Your task to perform on an android device: Clear all items from cart on walmart.com. Search for alienware aurora on walmart.com, select the first entry, and add it to the cart. Image 0: 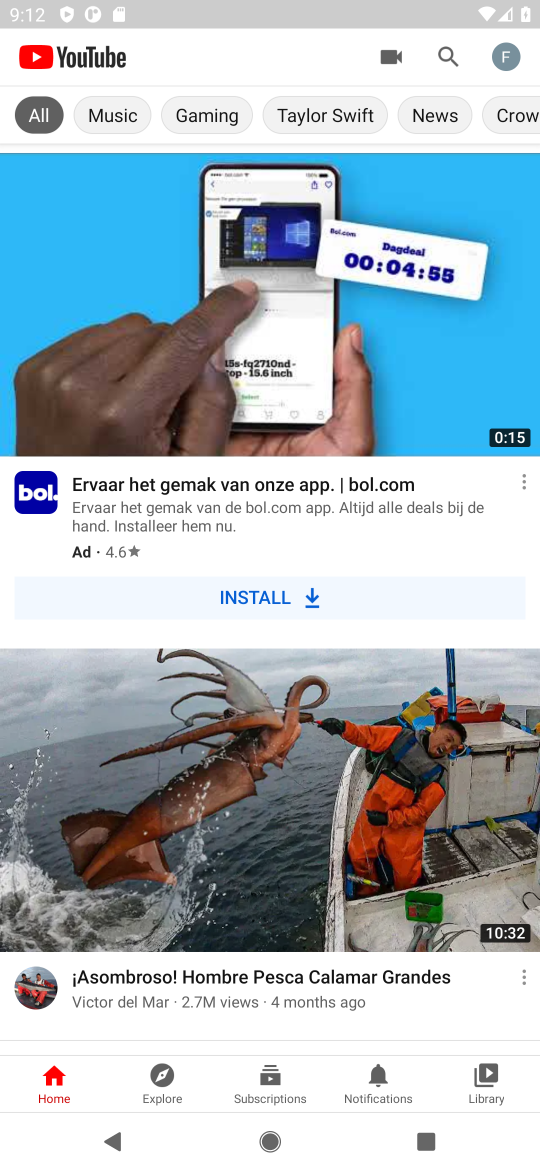
Step 0: press home button
Your task to perform on an android device: Clear all items from cart on walmart.com. Search for alienware aurora on walmart.com, select the first entry, and add it to the cart. Image 1: 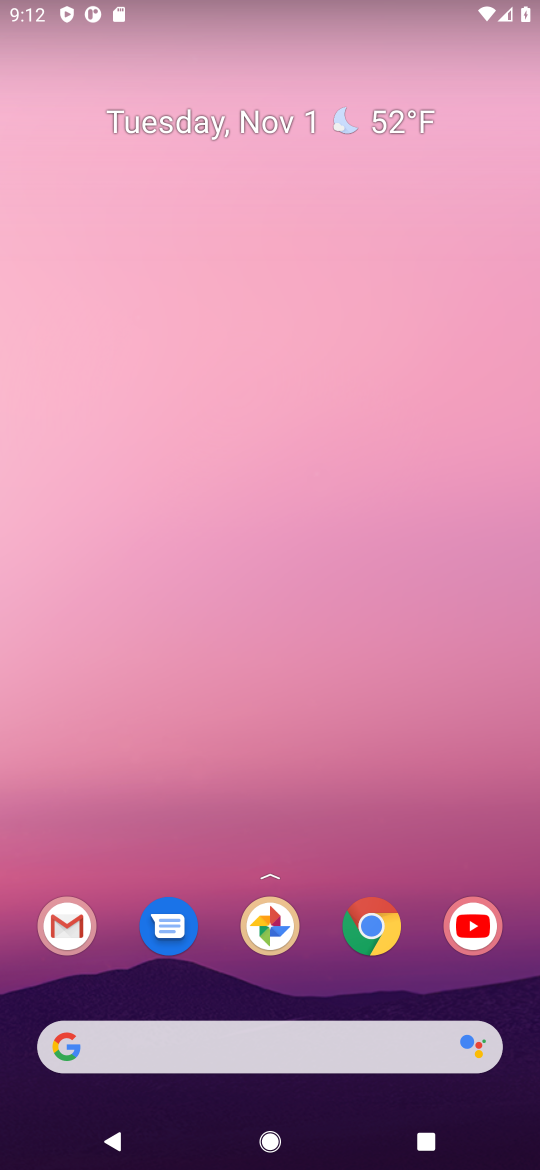
Step 1: click (361, 918)
Your task to perform on an android device: Clear all items from cart on walmart.com. Search for alienware aurora on walmart.com, select the first entry, and add it to the cart. Image 2: 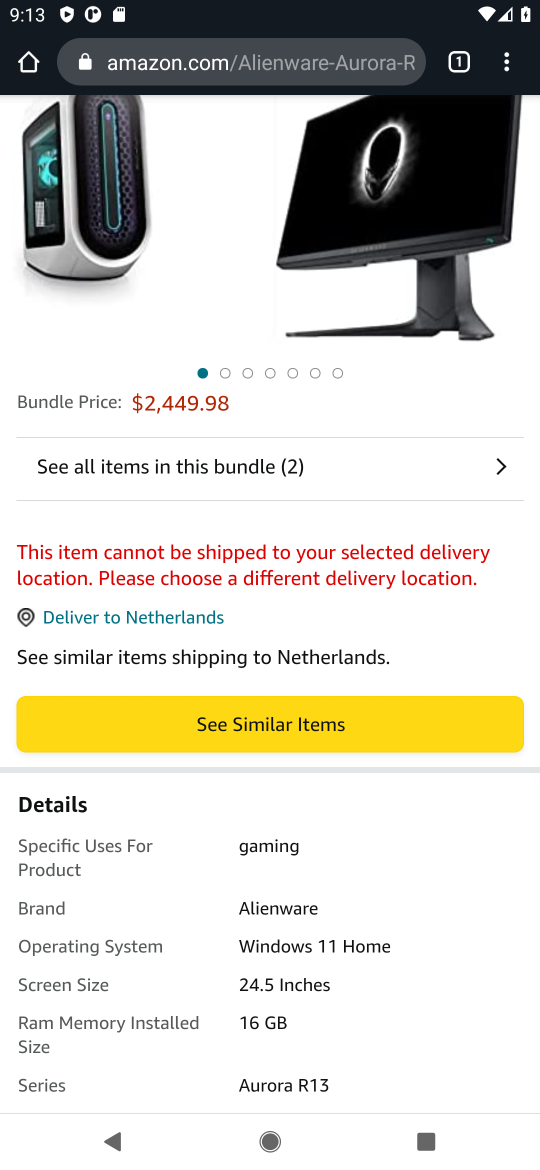
Step 2: press home button
Your task to perform on an android device: Clear all items from cart on walmart.com. Search for alienware aurora on walmart.com, select the first entry, and add it to the cart. Image 3: 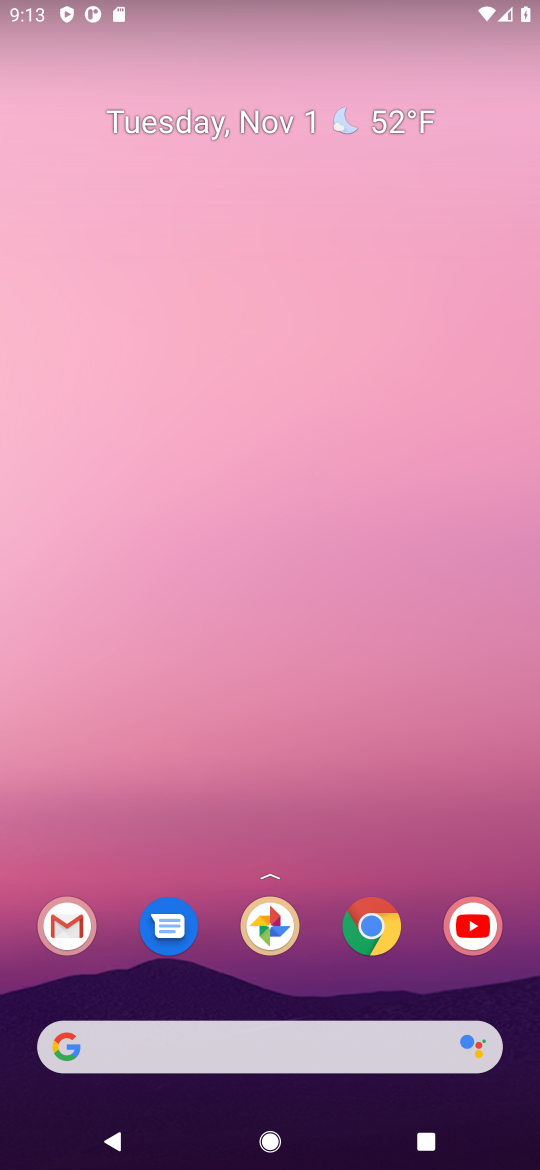
Step 3: click (379, 931)
Your task to perform on an android device: Clear all items from cart on walmart.com. Search for alienware aurora on walmart.com, select the first entry, and add it to the cart. Image 4: 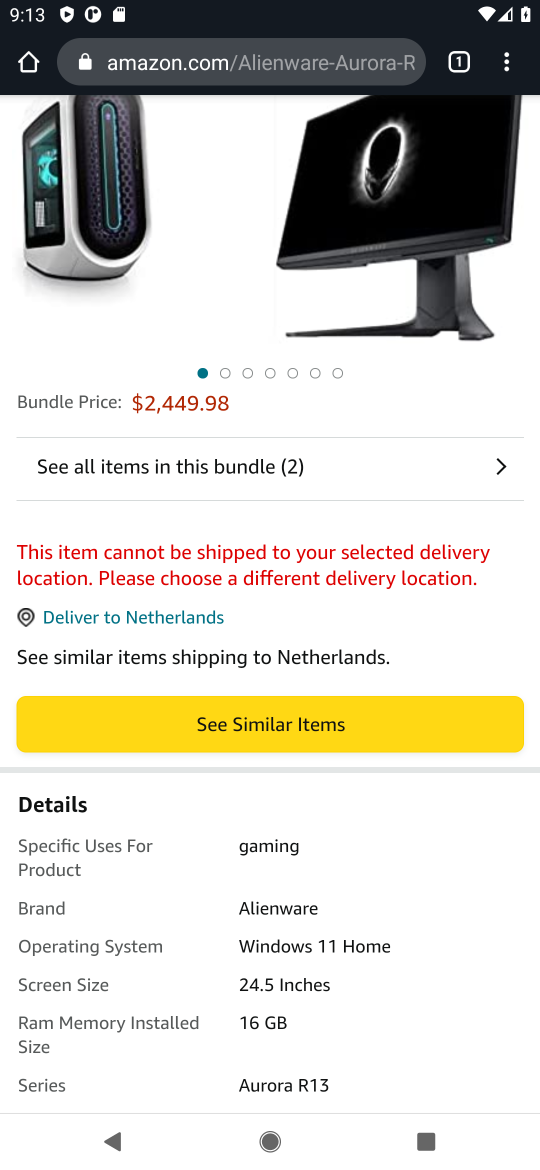
Step 4: drag from (57, 830) to (146, 274)
Your task to perform on an android device: Clear all items from cart on walmart.com. Search for alienware aurora on walmart.com, select the first entry, and add it to the cart. Image 5: 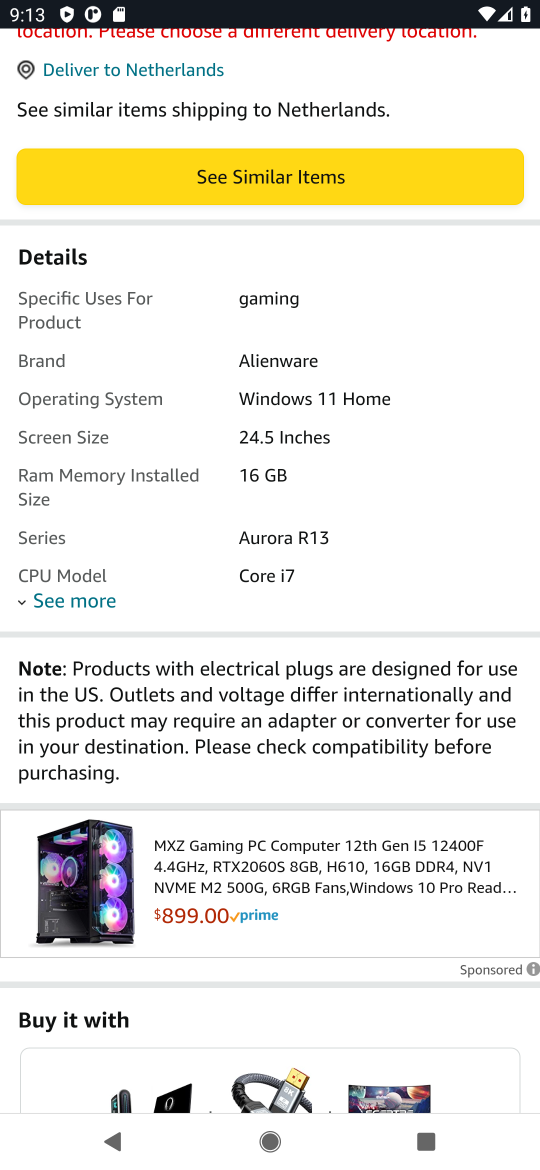
Step 5: drag from (294, 860) to (330, 525)
Your task to perform on an android device: Clear all items from cart on walmart.com. Search for alienware aurora on walmart.com, select the first entry, and add it to the cart. Image 6: 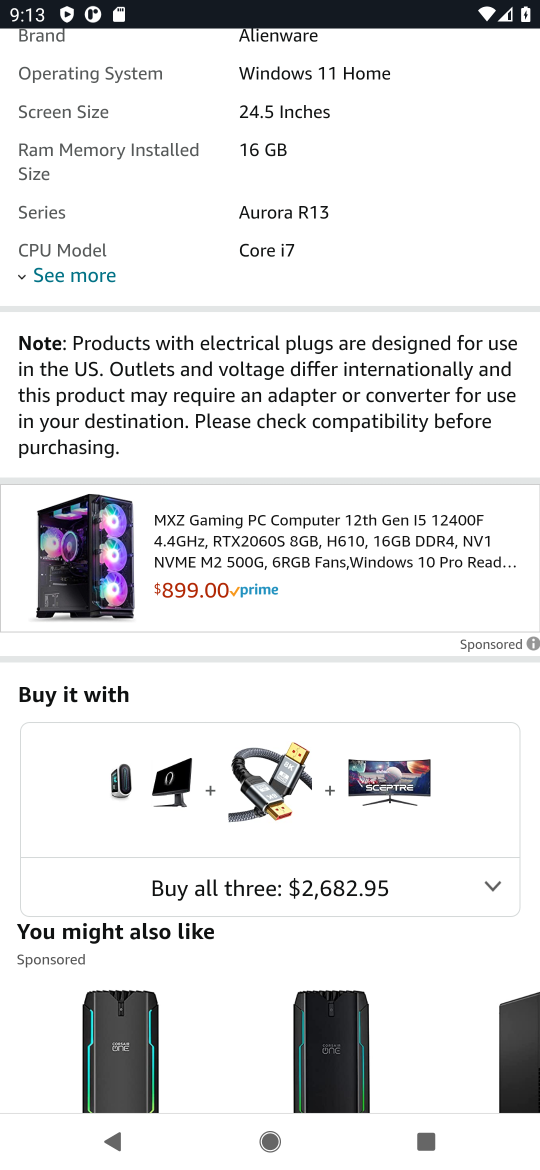
Step 6: drag from (355, 281) to (288, 1020)
Your task to perform on an android device: Clear all items from cart on walmart.com. Search for alienware aurora on walmart.com, select the first entry, and add it to the cart. Image 7: 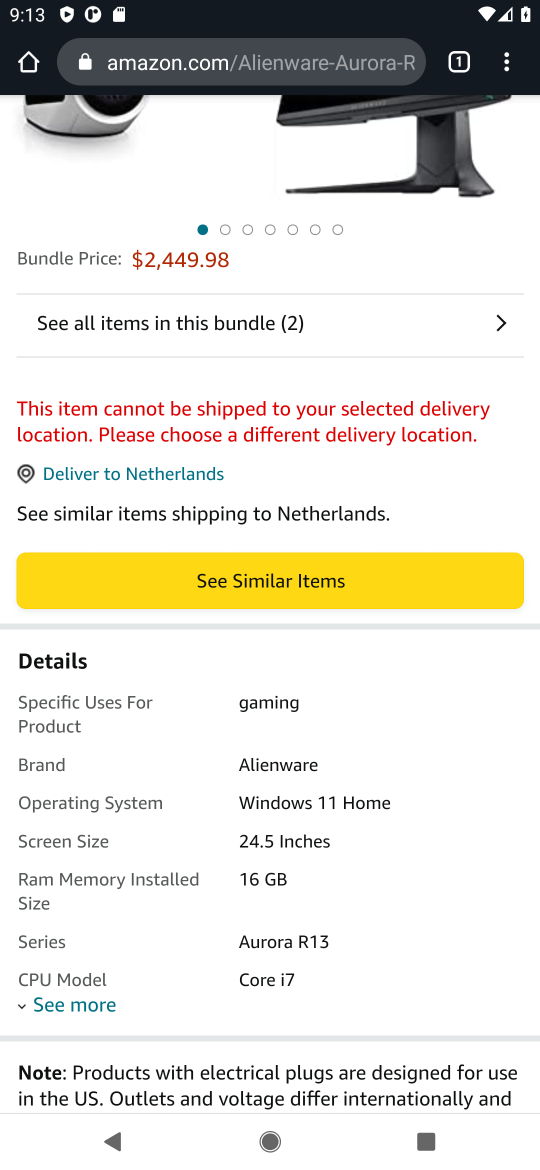
Step 7: drag from (282, 356) to (298, 776)
Your task to perform on an android device: Clear all items from cart on walmart.com. Search for alienware aurora on walmart.com, select the first entry, and add it to the cart. Image 8: 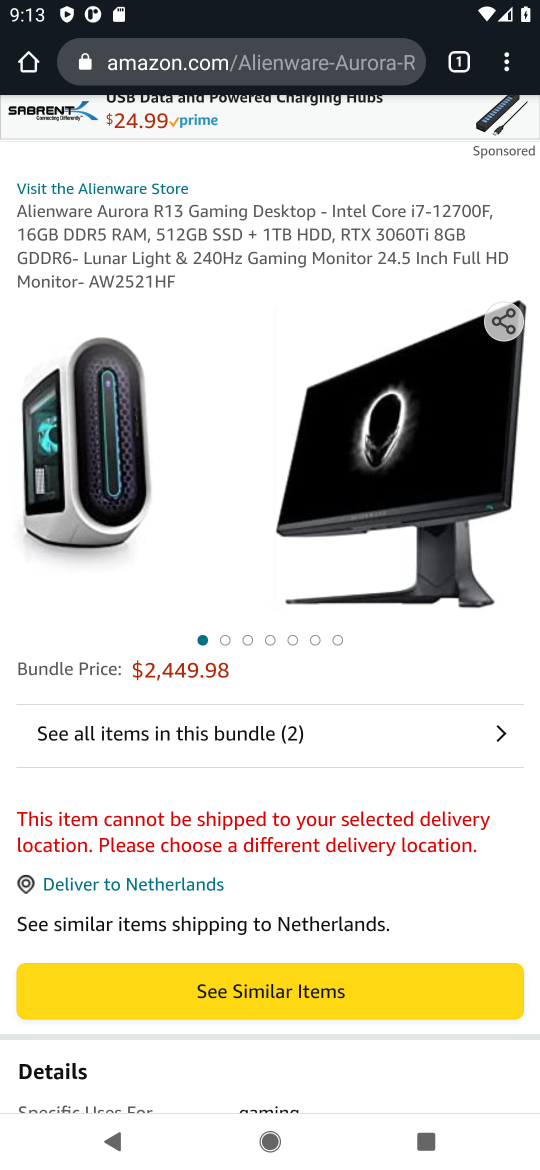
Step 8: click (138, 73)
Your task to perform on an android device: Clear all items from cart on walmart.com. Search for alienware aurora on walmart.com, select the first entry, and add it to the cart. Image 9: 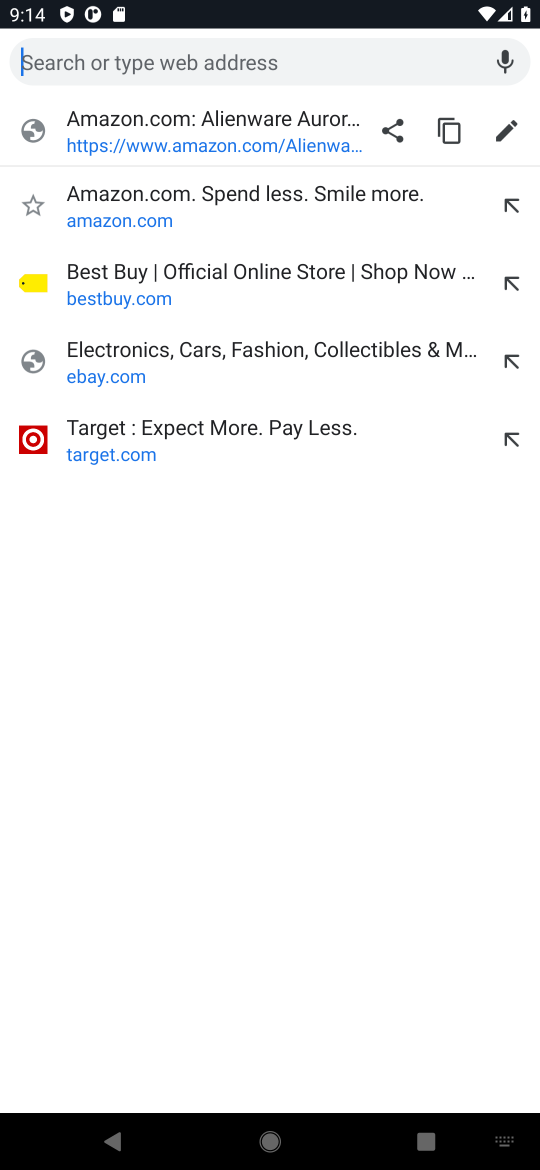
Step 9: type "walmart . com"
Your task to perform on an android device: Clear all items from cart on walmart.com. Search for alienware aurora on walmart.com, select the first entry, and add it to the cart. Image 10: 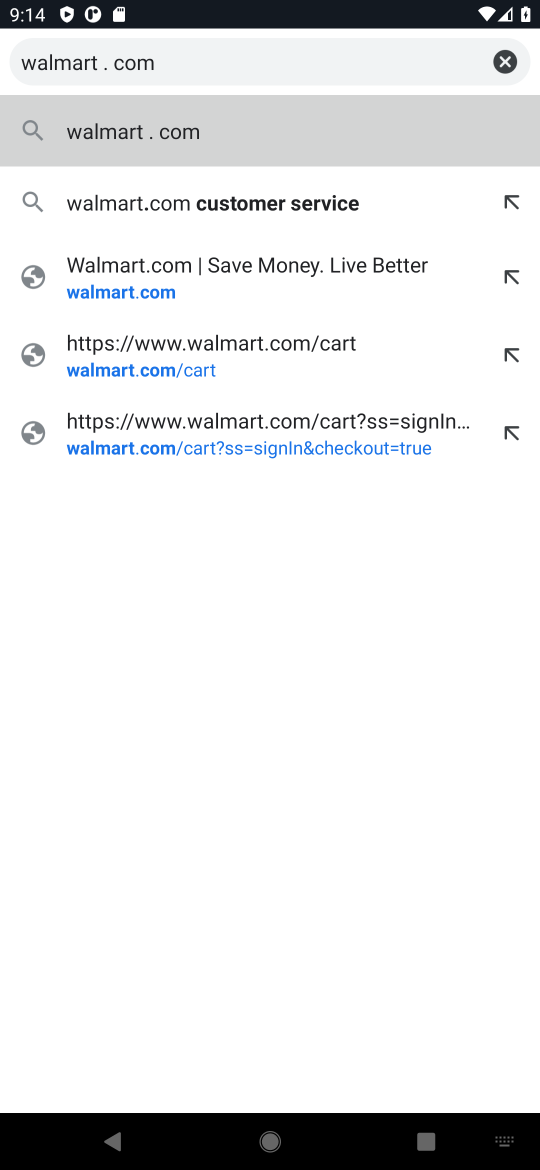
Step 10: drag from (390, 81) to (145, 289)
Your task to perform on an android device: Clear all items from cart on walmart.com. Search for alienware aurora on walmart.com, select the first entry, and add it to the cart. Image 11: 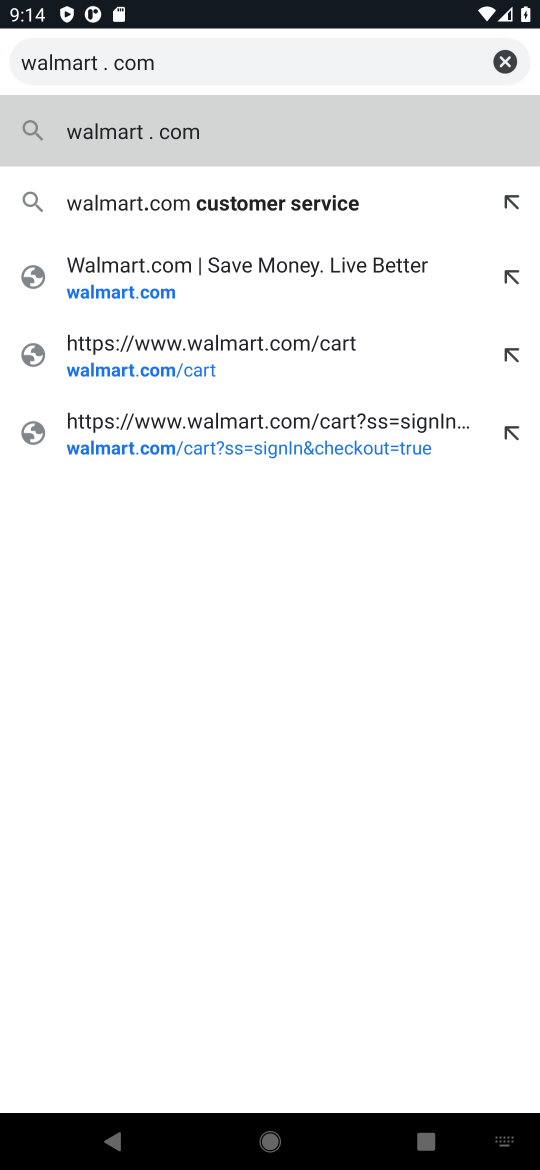
Step 11: click (156, 290)
Your task to perform on an android device: Clear all items from cart on walmart.com. Search for alienware aurora on walmart.com, select the first entry, and add it to the cart. Image 12: 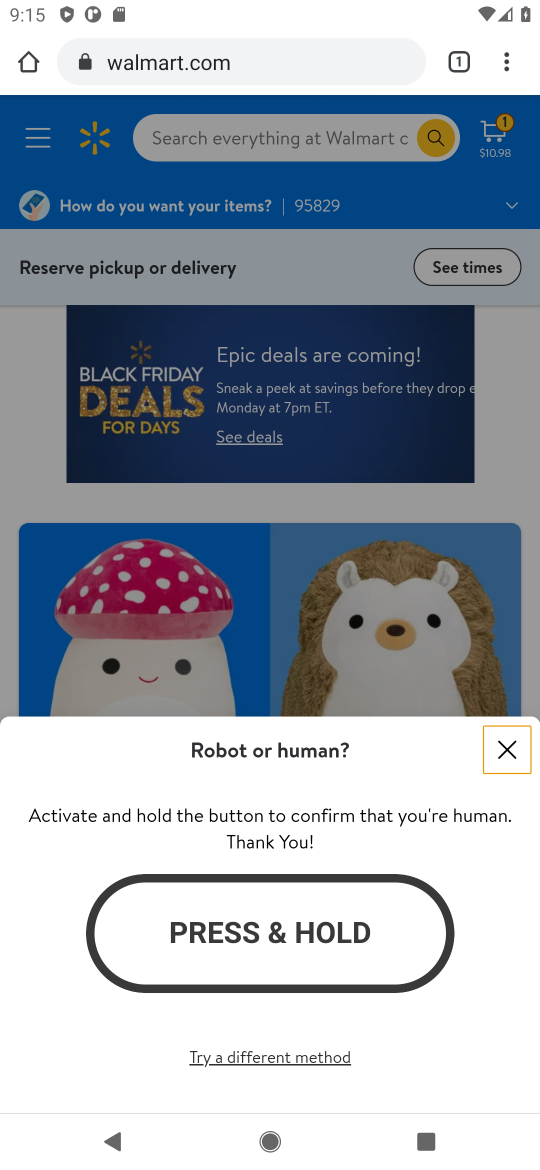
Step 12: click (507, 739)
Your task to perform on an android device: Clear all items from cart on walmart.com. Search for alienware aurora on walmart.com, select the first entry, and add it to the cart. Image 13: 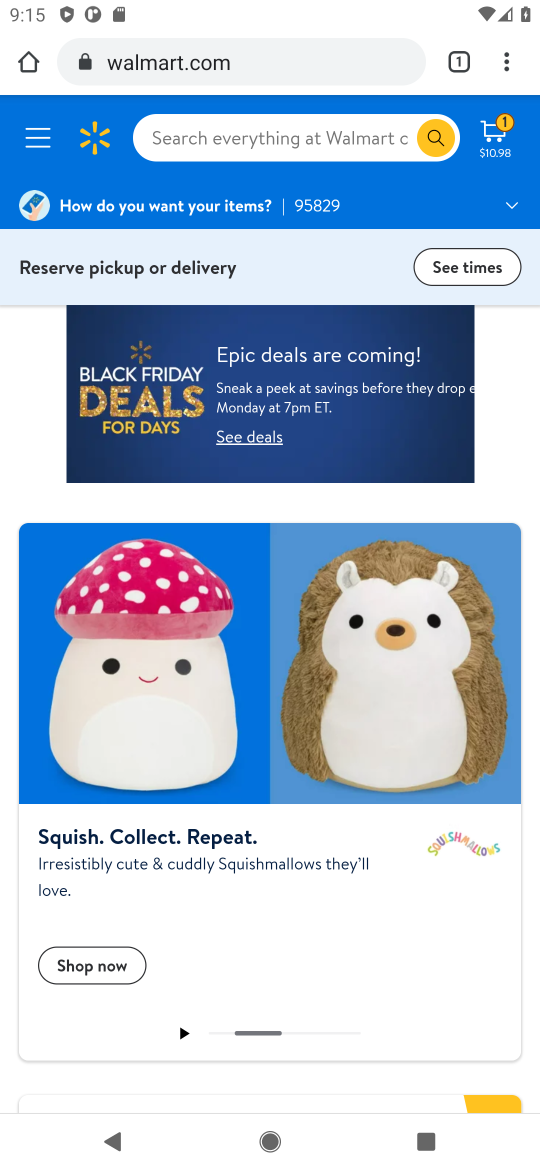
Step 13: click (236, 136)
Your task to perform on an android device: Clear all items from cart on walmart.com. Search for alienware aurora on walmart.com, select the first entry, and add it to the cart. Image 14: 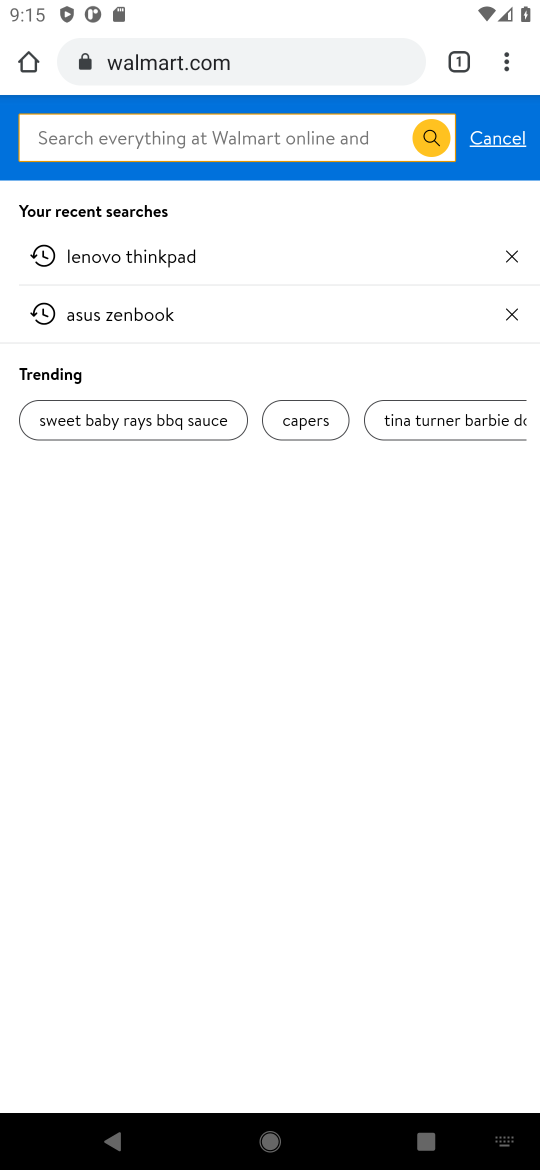
Step 14: type "alienware aurora"
Your task to perform on an android device: Clear all items from cart on walmart.com. Search for alienware aurora on walmart.com, select the first entry, and add it to the cart. Image 15: 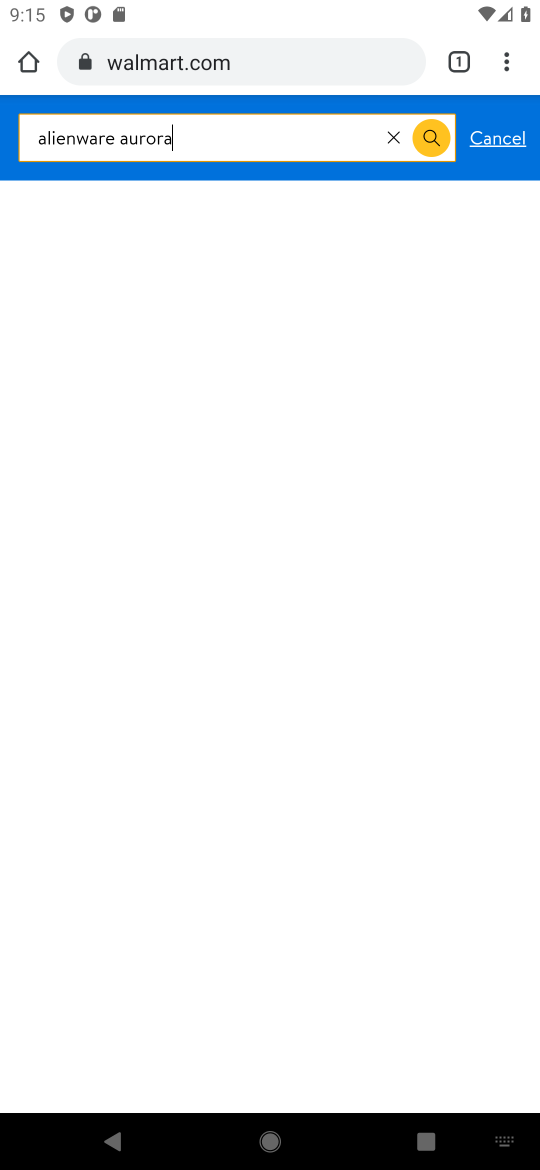
Step 15: type ""
Your task to perform on an android device: Clear all items from cart on walmart.com. Search for alienware aurora on walmart.com, select the first entry, and add it to the cart. Image 16: 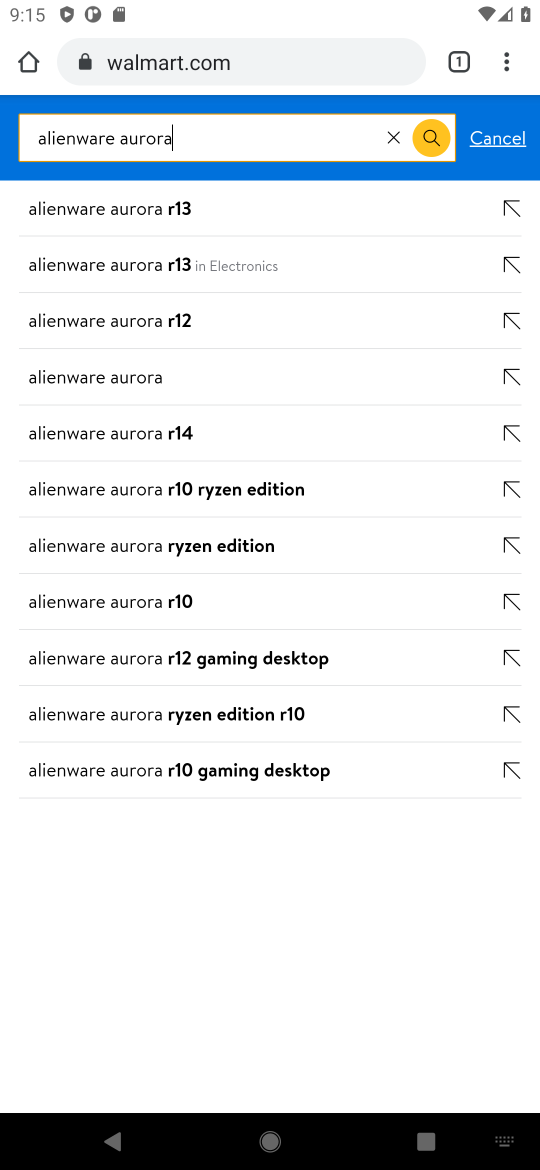
Step 16: click (119, 207)
Your task to perform on an android device: Clear all items from cart on walmart.com. Search for alienware aurora on walmart.com, select the first entry, and add it to the cart. Image 17: 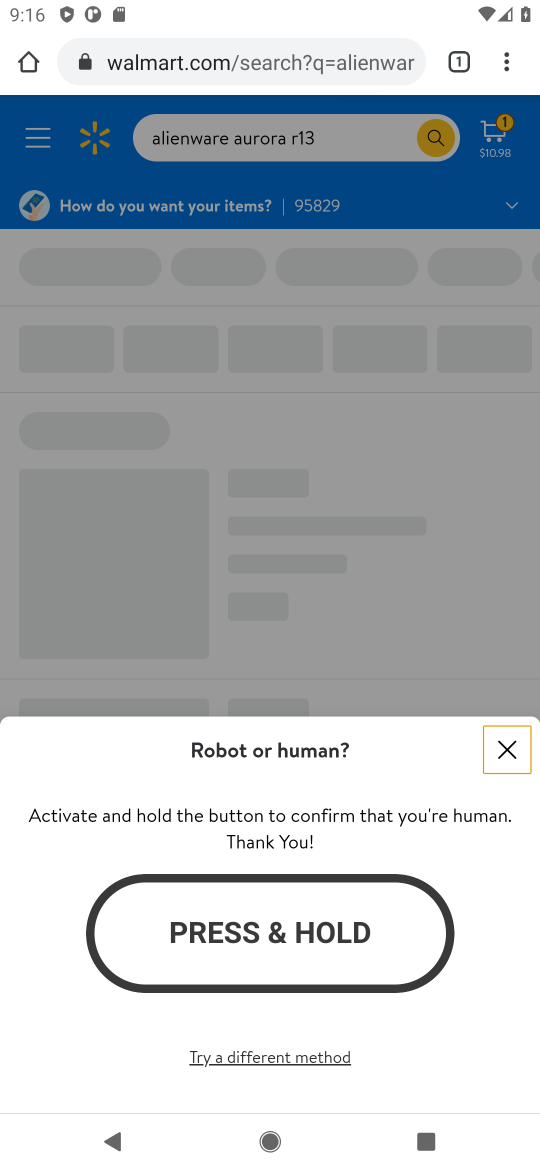
Step 17: click (509, 746)
Your task to perform on an android device: Clear all items from cart on walmart.com. Search for alienware aurora on walmart.com, select the first entry, and add it to the cart. Image 18: 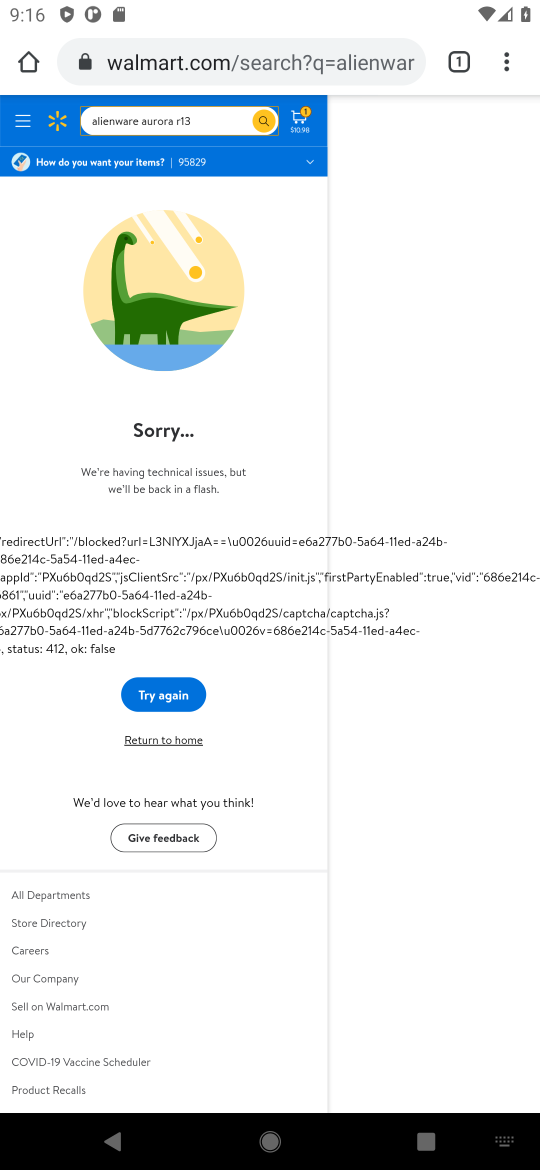
Step 18: click (208, 121)
Your task to perform on an android device: Clear all items from cart on walmart.com. Search for alienware aurora on walmart.com, select the first entry, and add it to the cart. Image 19: 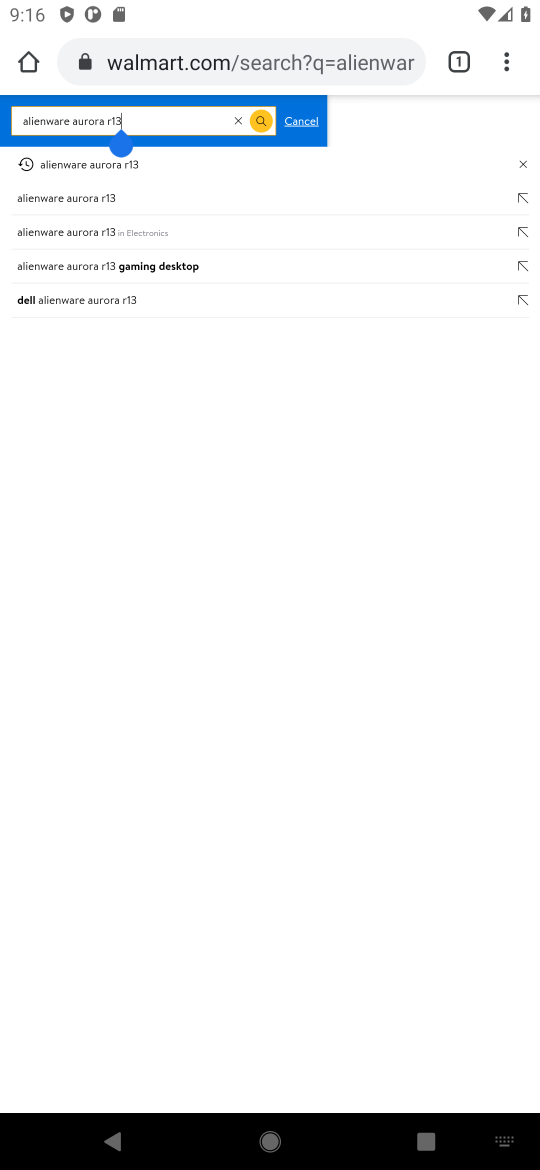
Step 19: click (87, 159)
Your task to perform on an android device: Clear all items from cart on walmart.com. Search for alienware aurora on walmart.com, select the first entry, and add it to the cart. Image 20: 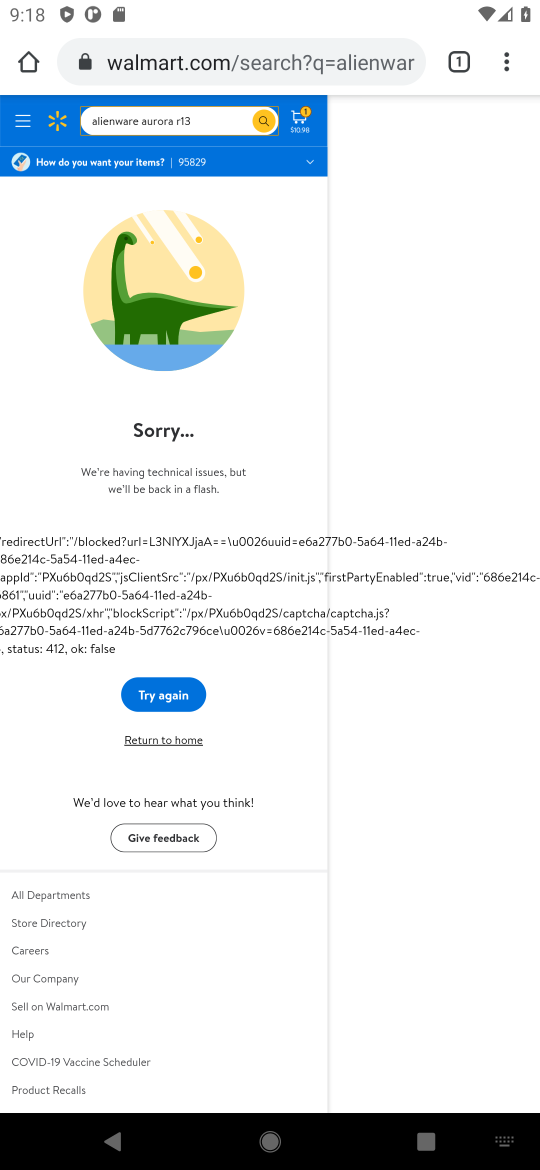
Step 20: task complete